Your task to perform on an android device: Go to Google Image 0: 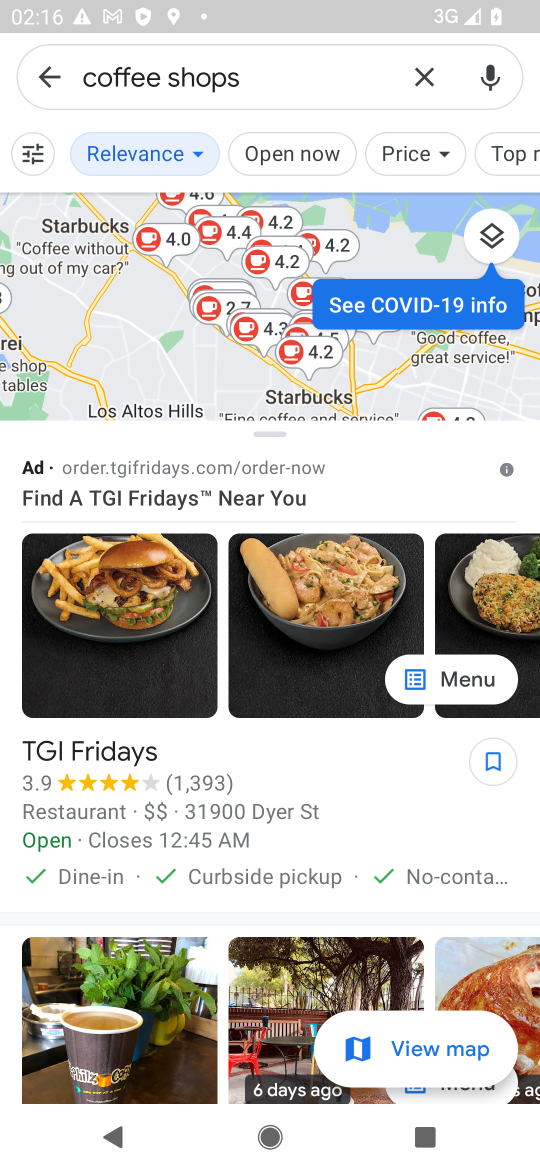
Step 0: press home button
Your task to perform on an android device: Go to Google Image 1: 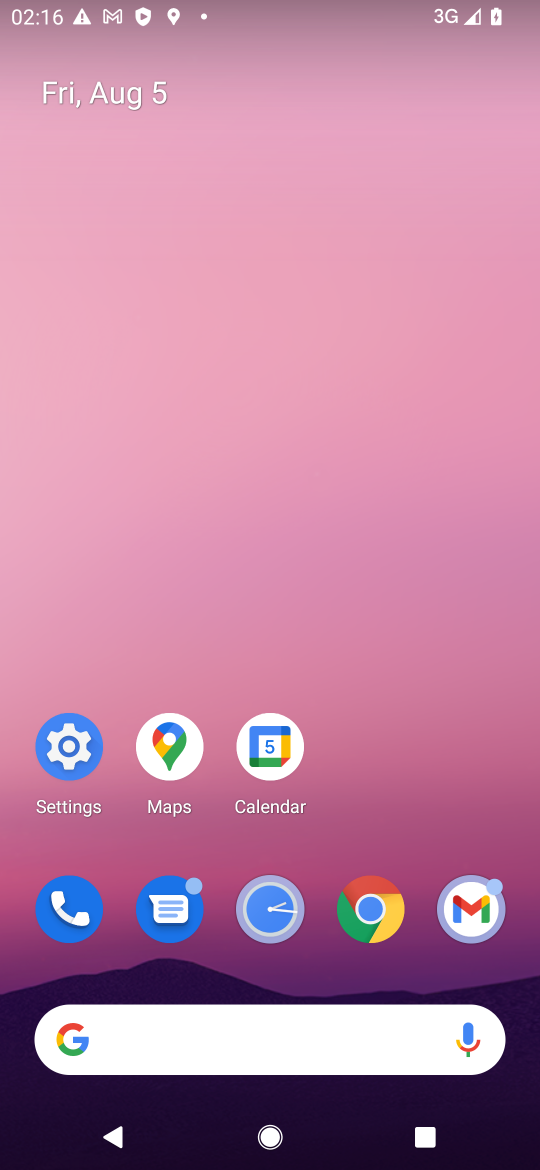
Step 1: click (74, 1046)
Your task to perform on an android device: Go to Google Image 2: 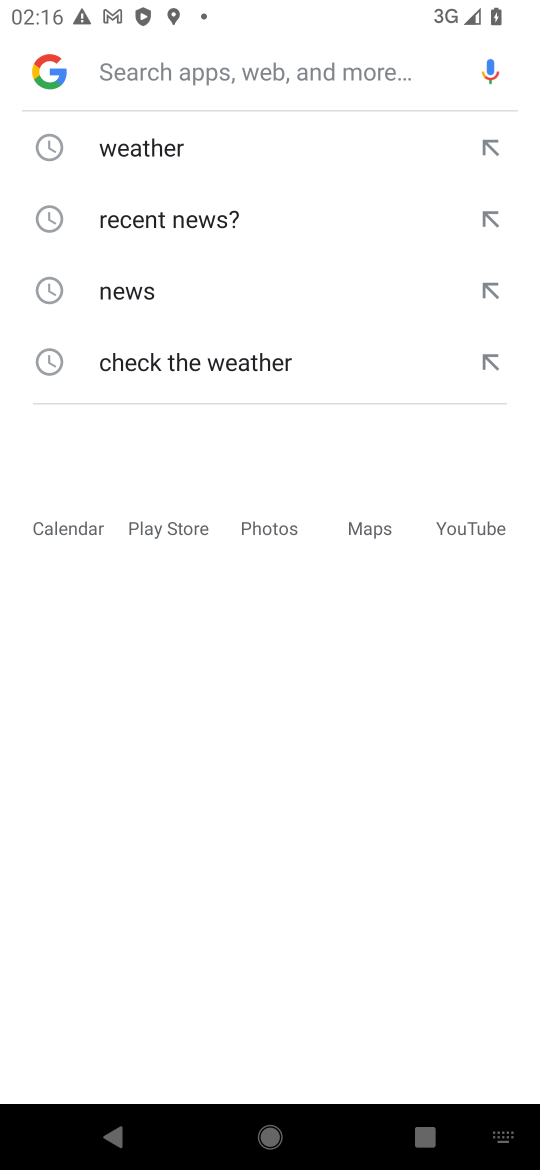
Step 2: click (46, 67)
Your task to perform on an android device: Go to Google Image 3: 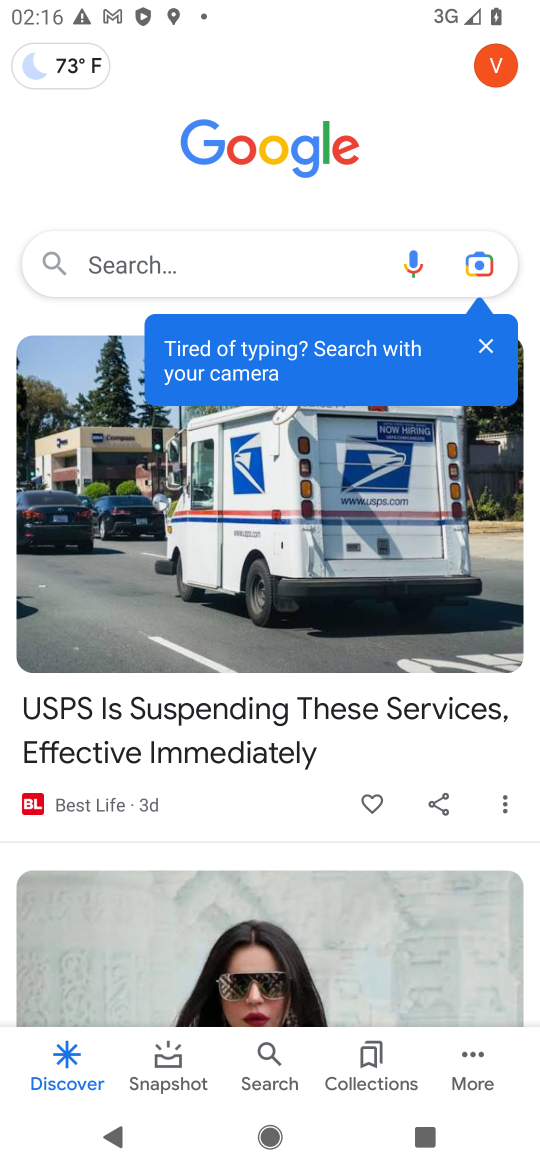
Step 3: task complete